Your task to perform on an android device: stop showing notifications on the lock screen Image 0: 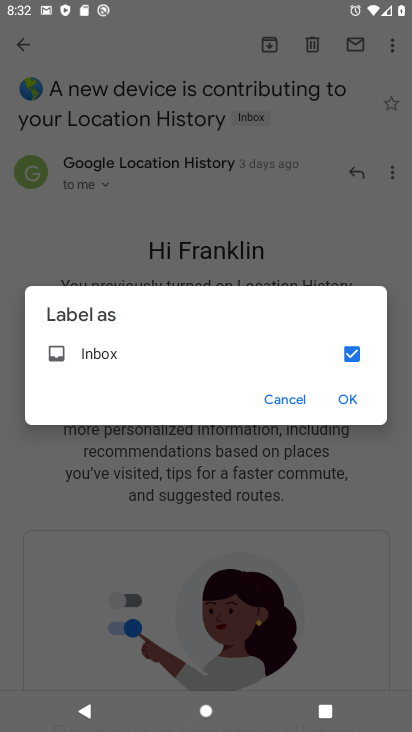
Step 0: press home button
Your task to perform on an android device: stop showing notifications on the lock screen Image 1: 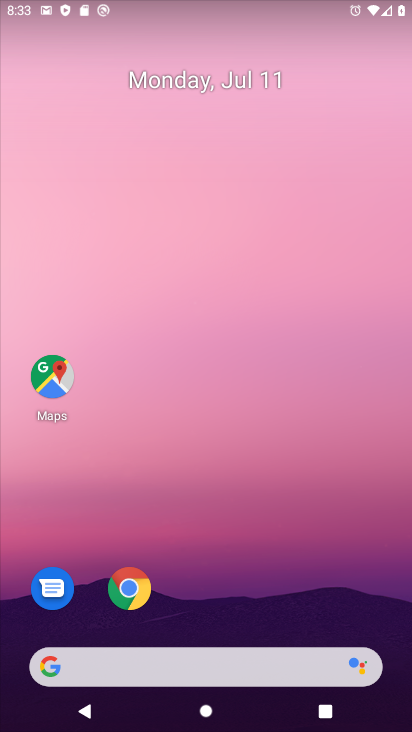
Step 1: drag from (193, 676) to (378, 140)
Your task to perform on an android device: stop showing notifications on the lock screen Image 2: 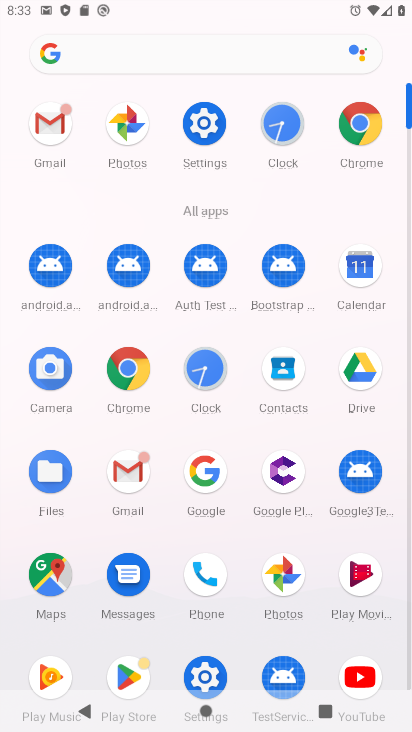
Step 2: click (202, 138)
Your task to perform on an android device: stop showing notifications on the lock screen Image 3: 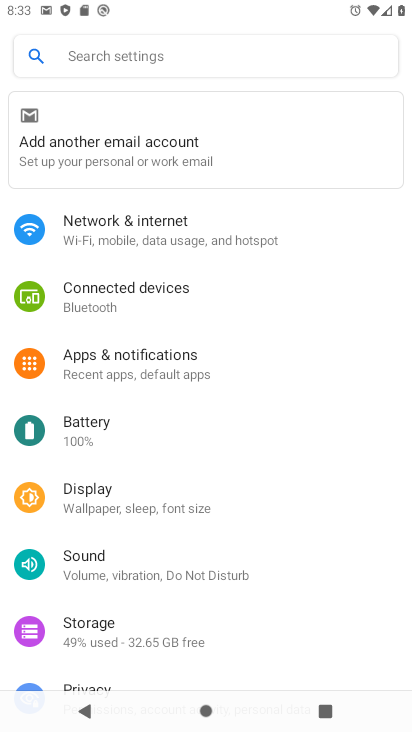
Step 3: click (139, 370)
Your task to perform on an android device: stop showing notifications on the lock screen Image 4: 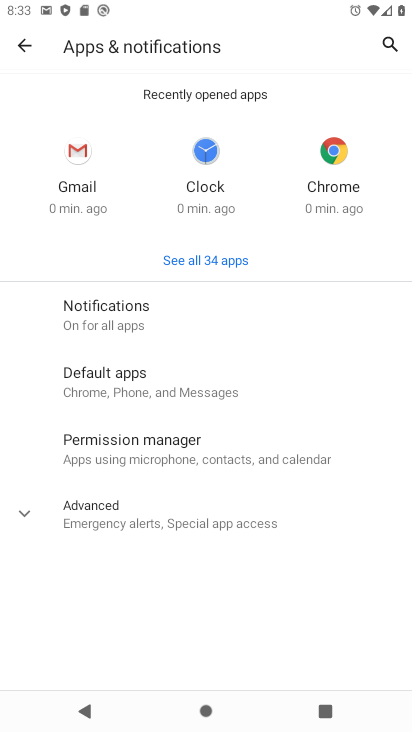
Step 4: click (112, 315)
Your task to perform on an android device: stop showing notifications on the lock screen Image 5: 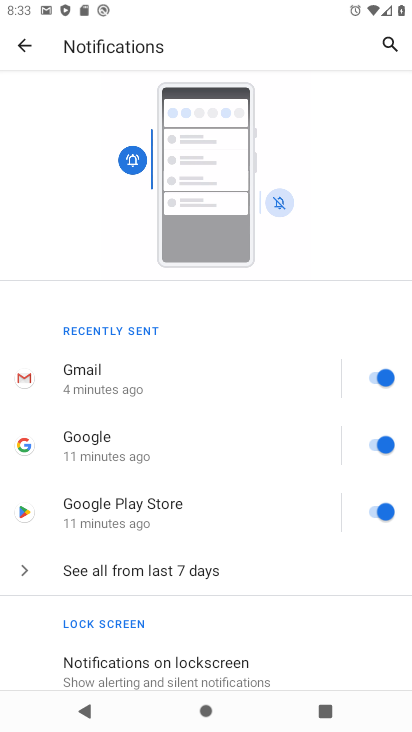
Step 5: drag from (191, 639) to (354, 354)
Your task to perform on an android device: stop showing notifications on the lock screen Image 6: 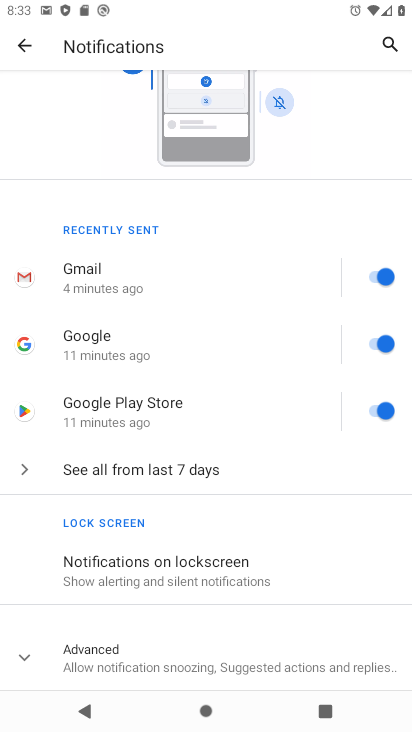
Step 6: click (209, 566)
Your task to perform on an android device: stop showing notifications on the lock screen Image 7: 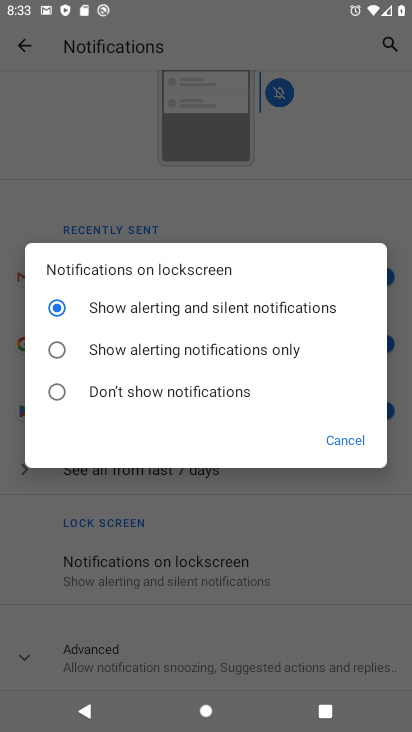
Step 7: click (58, 390)
Your task to perform on an android device: stop showing notifications on the lock screen Image 8: 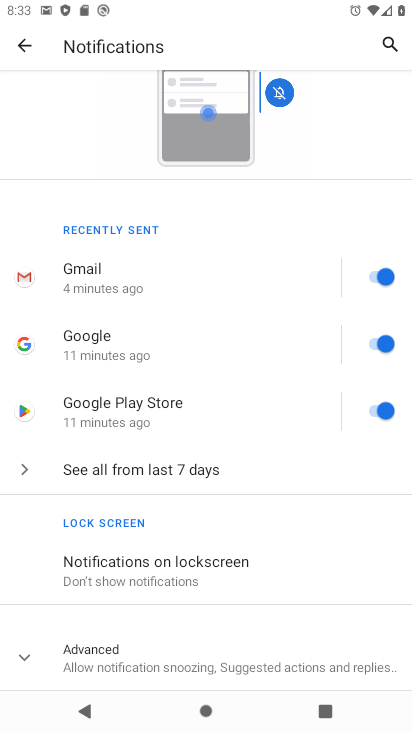
Step 8: task complete